Your task to perform on an android device: Open Chrome and go to settings Image 0: 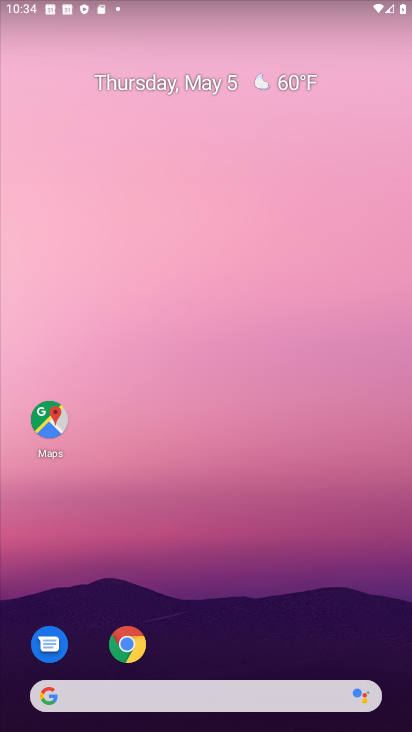
Step 0: drag from (252, 310) to (266, 77)
Your task to perform on an android device: Open Chrome and go to settings Image 1: 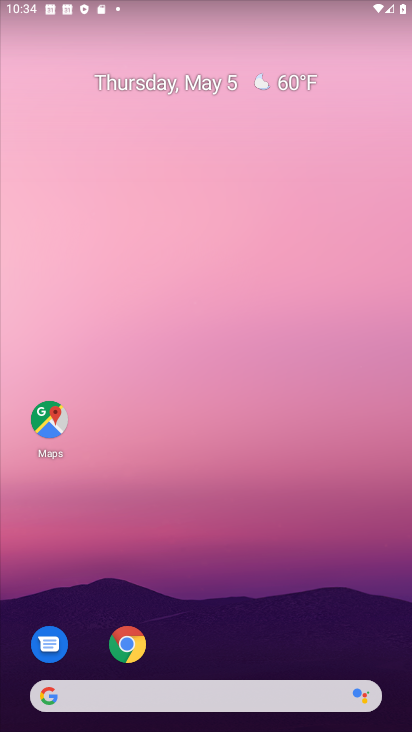
Step 1: drag from (214, 656) to (216, 220)
Your task to perform on an android device: Open Chrome and go to settings Image 2: 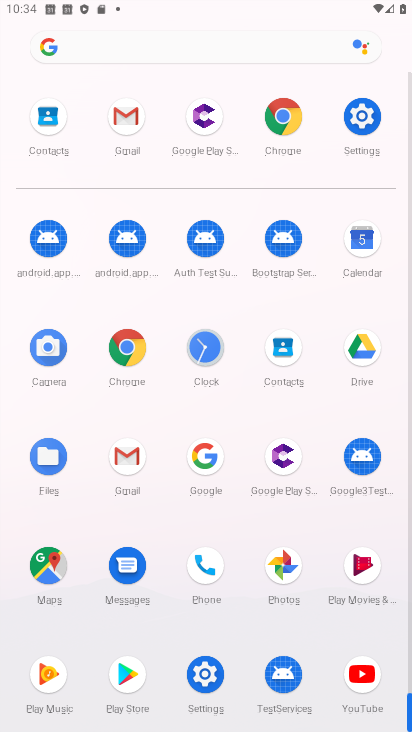
Step 2: click (274, 115)
Your task to perform on an android device: Open Chrome and go to settings Image 3: 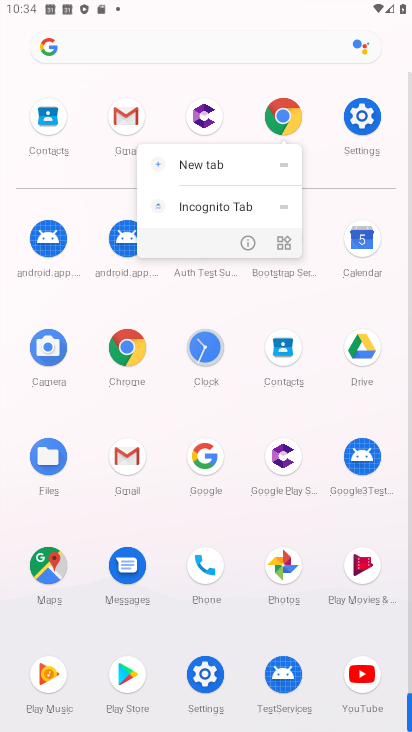
Step 3: click (254, 244)
Your task to perform on an android device: Open Chrome and go to settings Image 4: 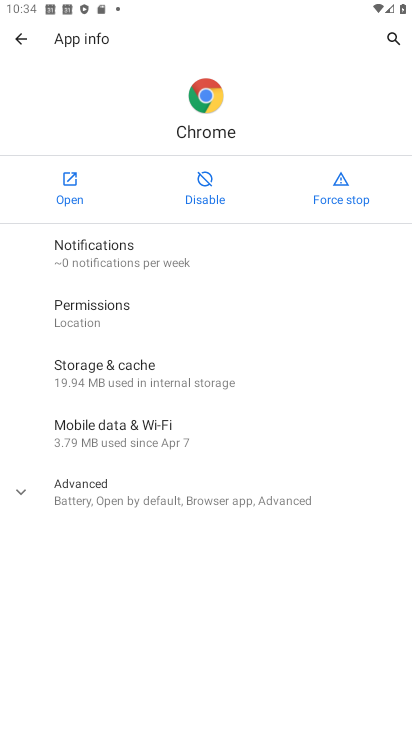
Step 4: click (72, 181)
Your task to perform on an android device: Open Chrome and go to settings Image 5: 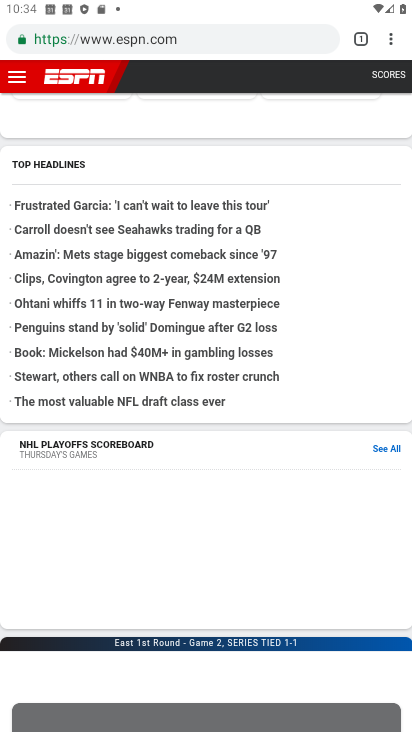
Step 5: click (388, 44)
Your task to perform on an android device: Open Chrome and go to settings Image 6: 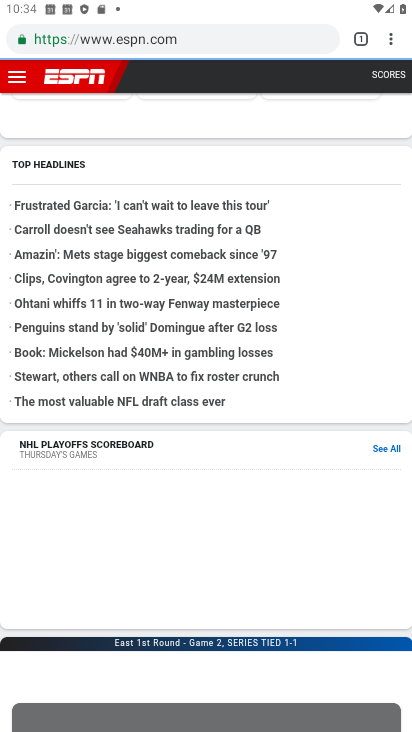
Step 6: click (395, 40)
Your task to perform on an android device: Open Chrome and go to settings Image 7: 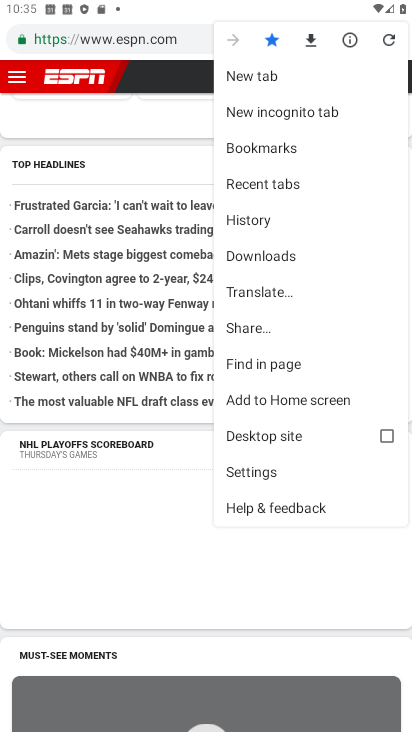
Step 7: click (273, 468)
Your task to perform on an android device: Open Chrome and go to settings Image 8: 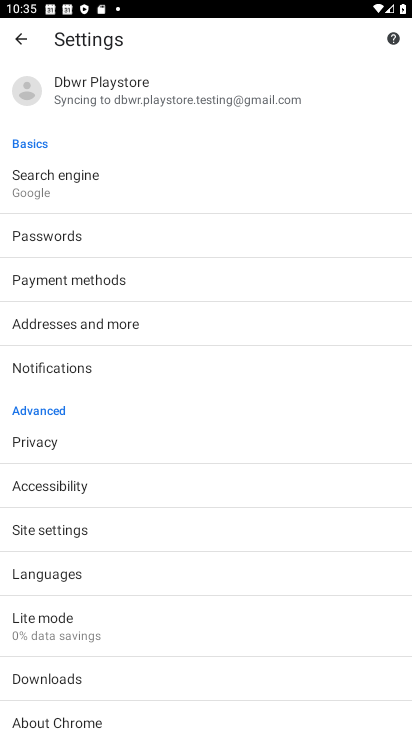
Step 8: task complete